Your task to perform on an android device: turn pop-ups off in chrome Image 0: 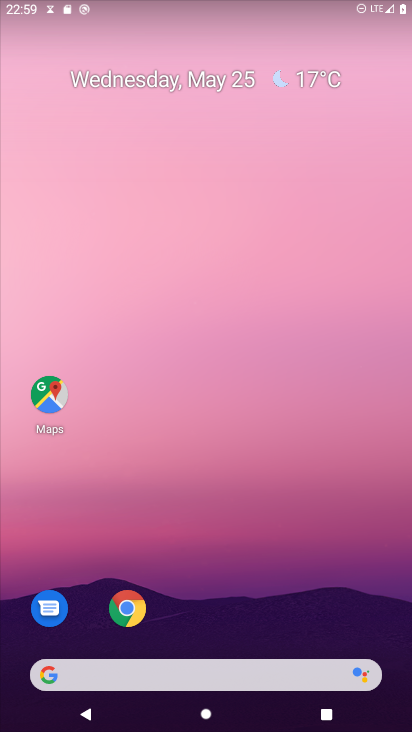
Step 0: click (126, 608)
Your task to perform on an android device: turn pop-ups off in chrome Image 1: 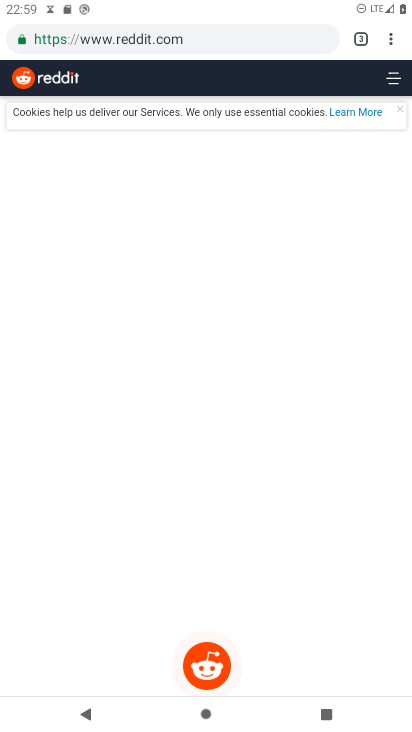
Step 1: click (389, 37)
Your task to perform on an android device: turn pop-ups off in chrome Image 2: 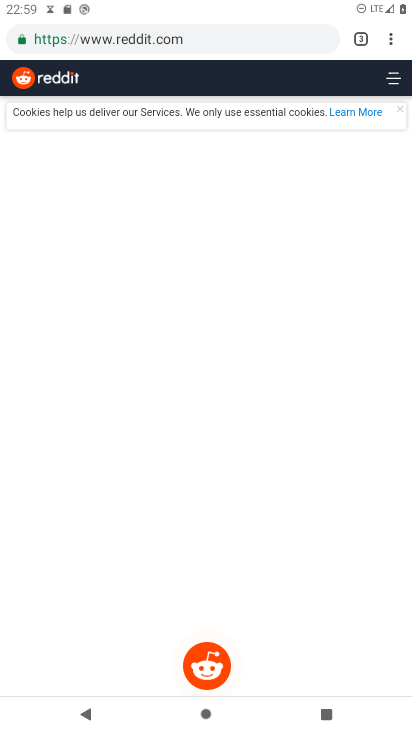
Step 2: click (391, 35)
Your task to perform on an android device: turn pop-ups off in chrome Image 3: 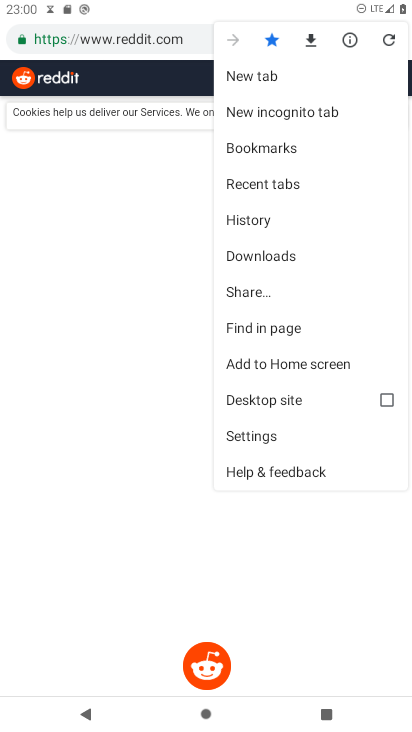
Step 3: click (285, 435)
Your task to perform on an android device: turn pop-ups off in chrome Image 4: 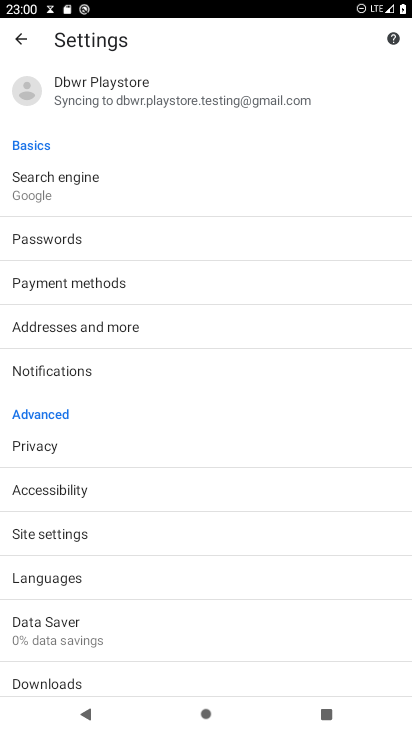
Step 4: click (78, 528)
Your task to perform on an android device: turn pop-ups off in chrome Image 5: 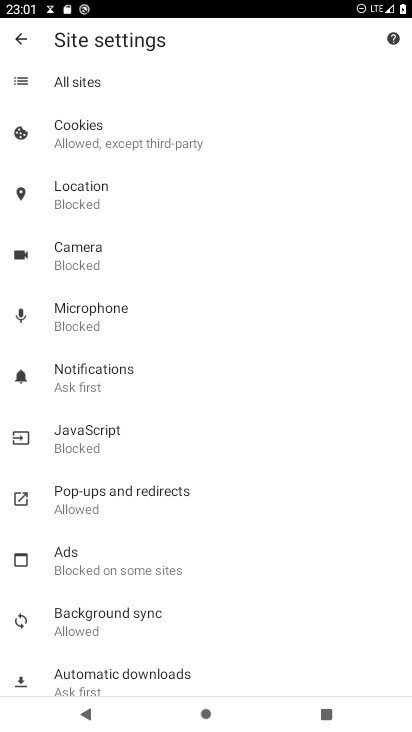
Step 5: click (146, 485)
Your task to perform on an android device: turn pop-ups off in chrome Image 6: 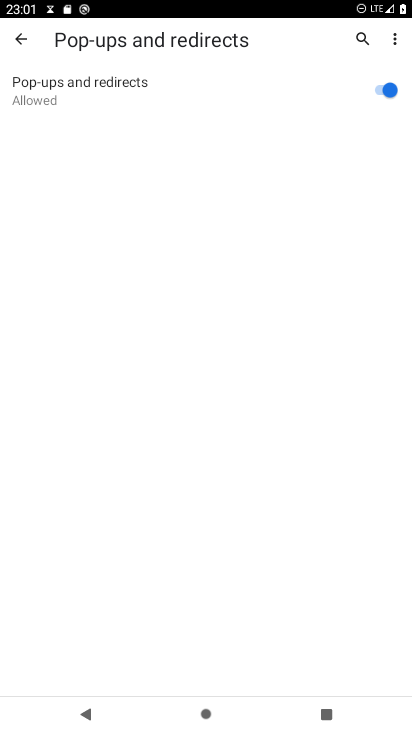
Step 6: click (379, 89)
Your task to perform on an android device: turn pop-ups off in chrome Image 7: 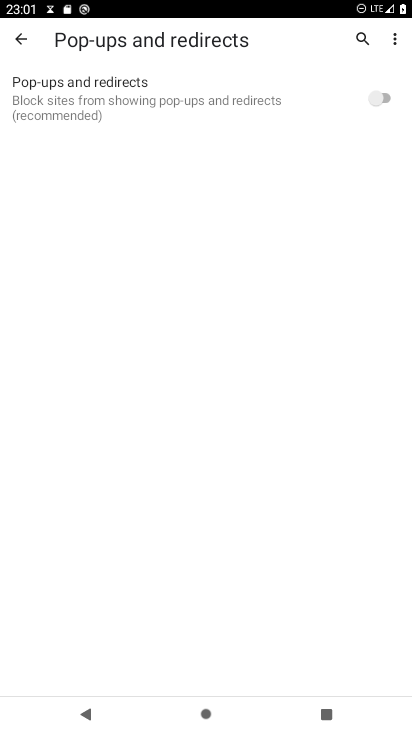
Step 7: task complete